Your task to perform on an android device: Open notification settings Image 0: 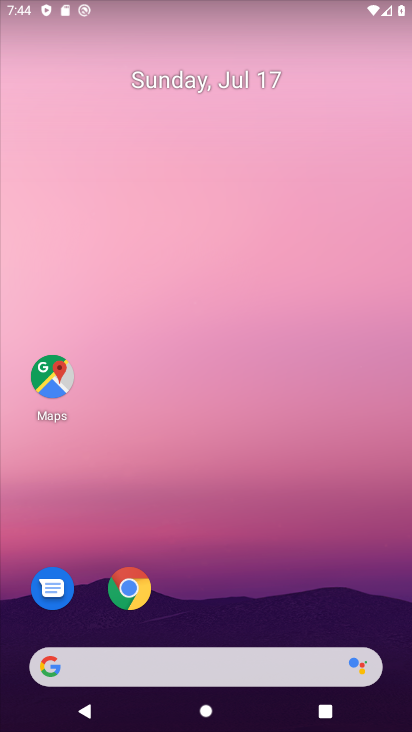
Step 0: drag from (221, 646) to (262, 113)
Your task to perform on an android device: Open notification settings Image 1: 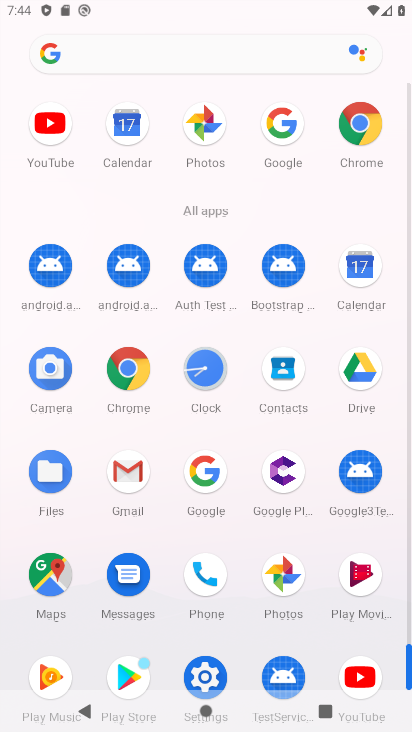
Step 1: drag from (253, 502) to (294, 225)
Your task to perform on an android device: Open notification settings Image 2: 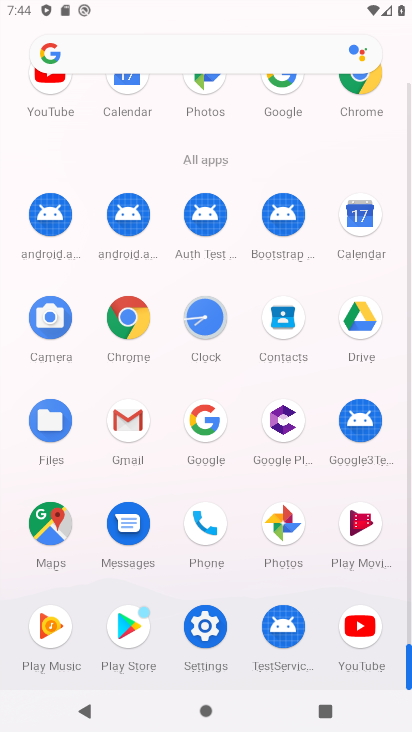
Step 2: click (214, 626)
Your task to perform on an android device: Open notification settings Image 3: 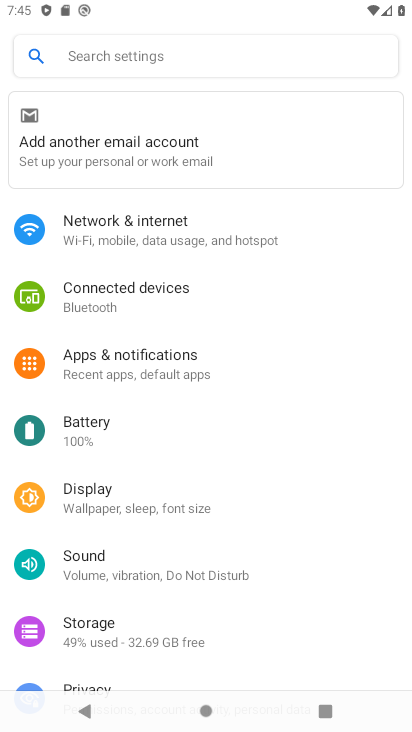
Step 3: click (143, 366)
Your task to perform on an android device: Open notification settings Image 4: 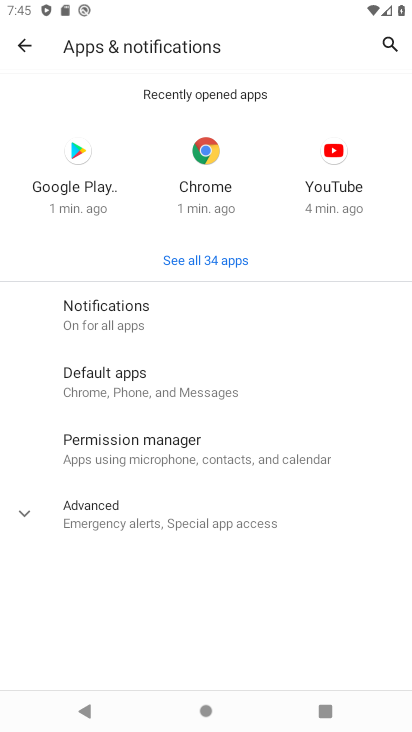
Step 4: click (158, 315)
Your task to perform on an android device: Open notification settings Image 5: 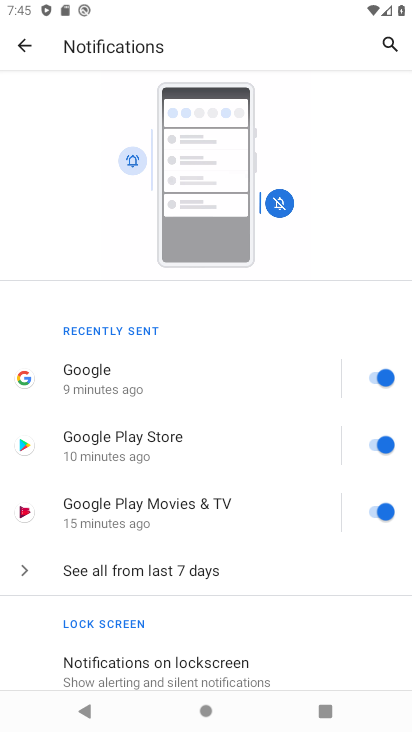
Step 5: task complete